Your task to perform on an android device: toggle notifications settings in the gmail app Image 0: 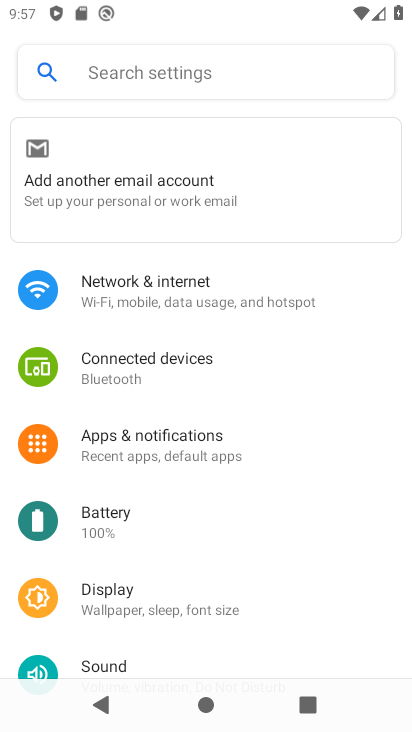
Step 0: press home button
Your task to perform on an android device: toggle notifications settings in the gmail app Image 1: 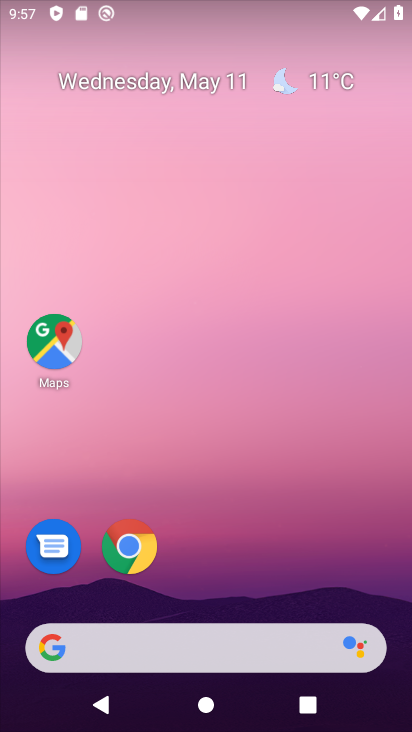
Step 1: drag from (234, 590) to (253, 19)
Your task to perform on an android device: toggle notifications settings in the gmail app Image 2: 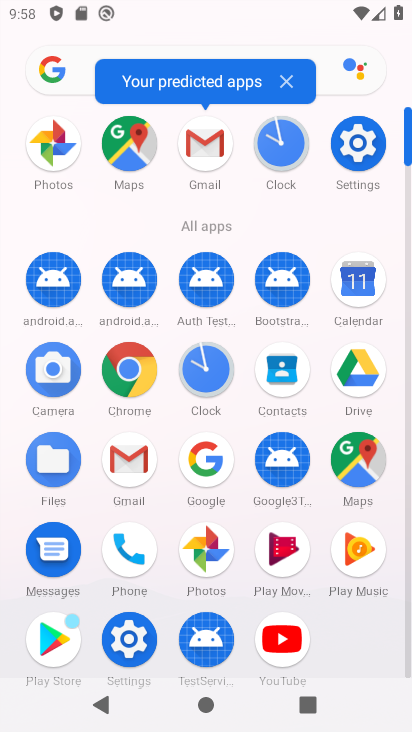
Step 2: click (127, 468)
Your task to perform on an android device: toggle notifications settings in the gmail app Image 3: 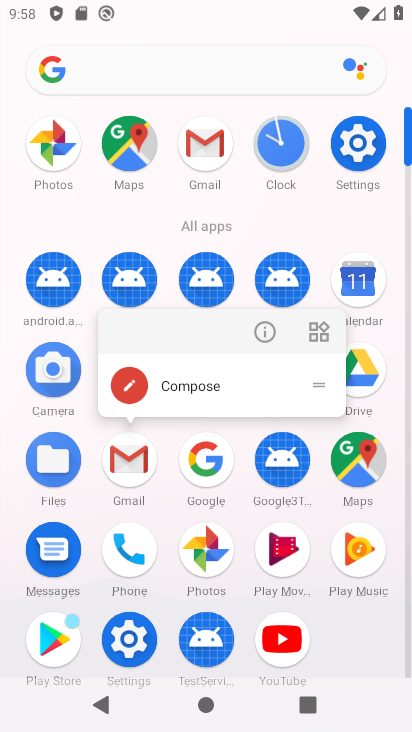
Step 3: click (260, 334)
Your task to perform on an android device: toggle notifications settings in the gmail app Image 4: 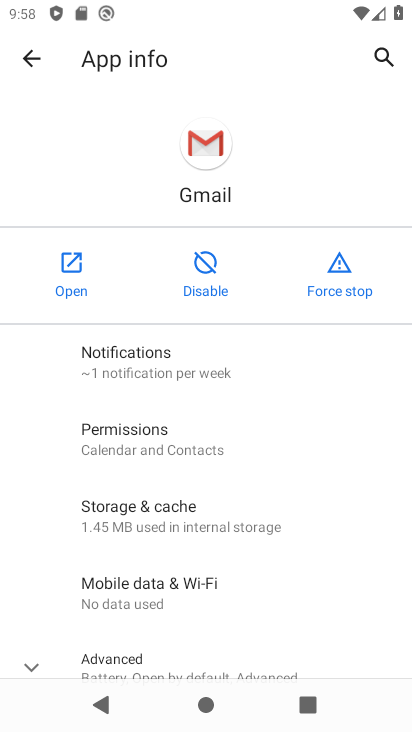
Step 4: click (121, 370)
Your task to perform on an android device: toggle notifications settings in the gmail app Image 5: 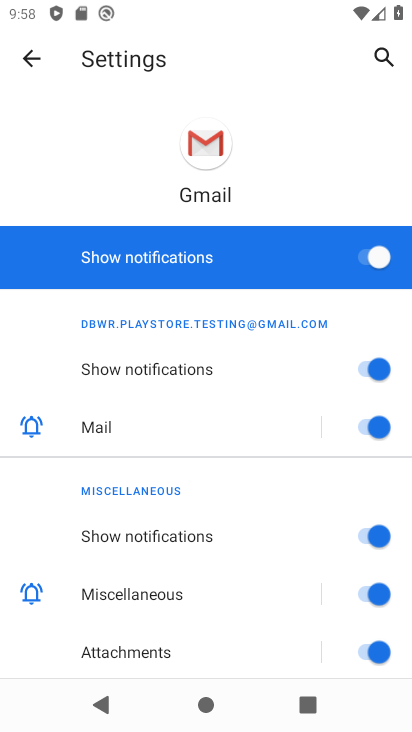
Step 5: click (375, 251)
Your task to perform on an android device: toggle notifications settings in the gmail app Image 6: 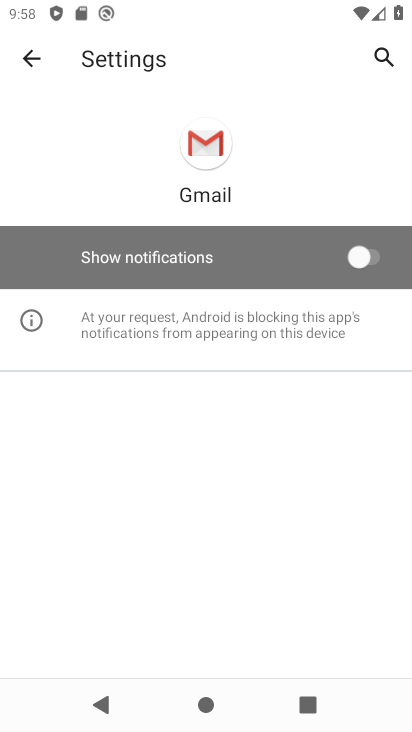
Step 6: task complete